Your task to perform on an android device: Open the stopwatch Image 0: 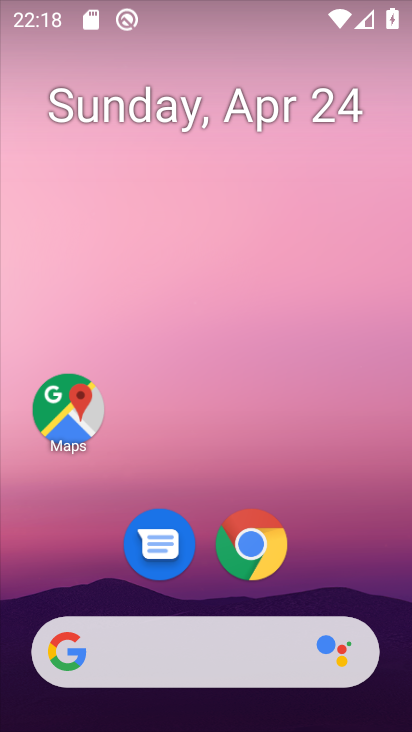
Step 0: drag from (329, 528) to (321, 259)
Your task to perform on an android device: Open the stopwatch Image 1: 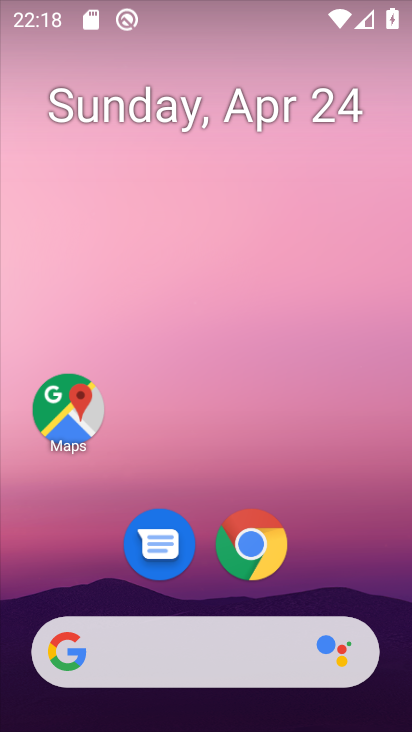
Step 1: drag from (343, 565) to (350, 240)
Your task to perform on an android device: Open the stopwatch Image 2: 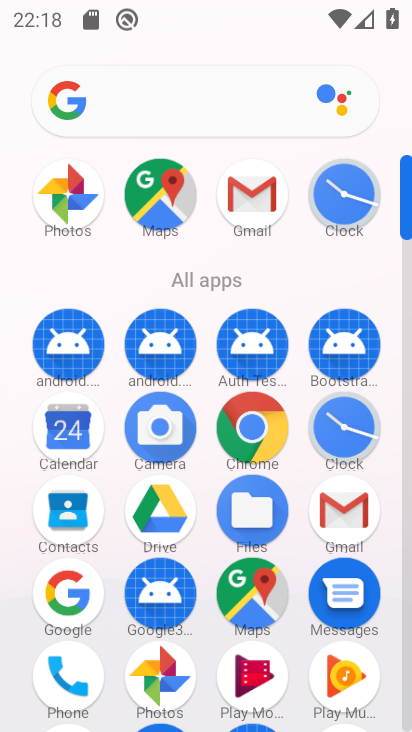
Step 2: click (326, 420)
Your task to perform on an android device: Open the stopwatch Image 3: 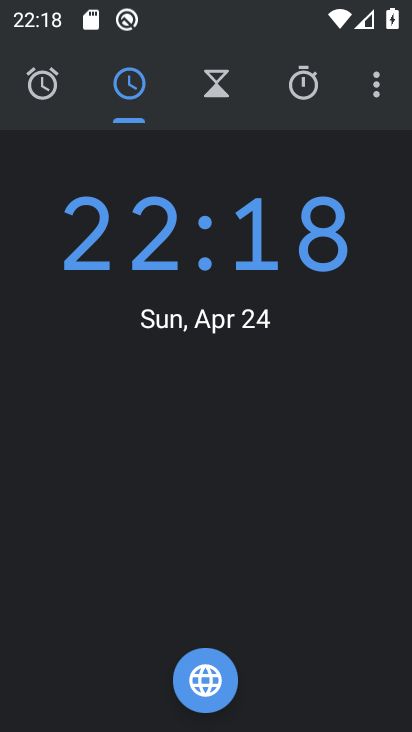
Step 3: click (293, 81)
Your task to perform on an android device: Open the stopwatch Image 4: 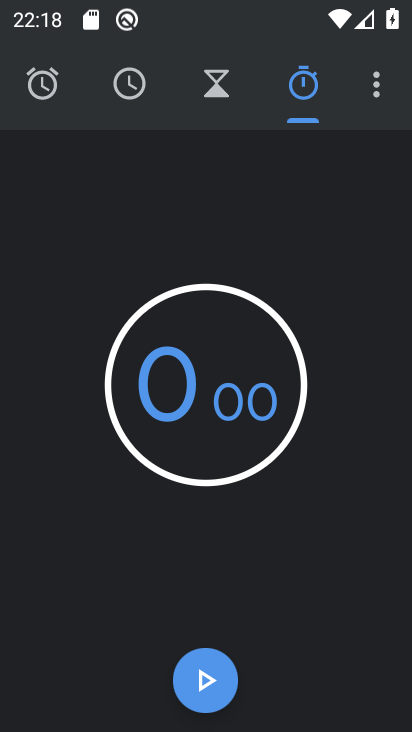
Step 4: click (199, 683)
Your task to perform on an android device: Open the stopwatch Image 5: 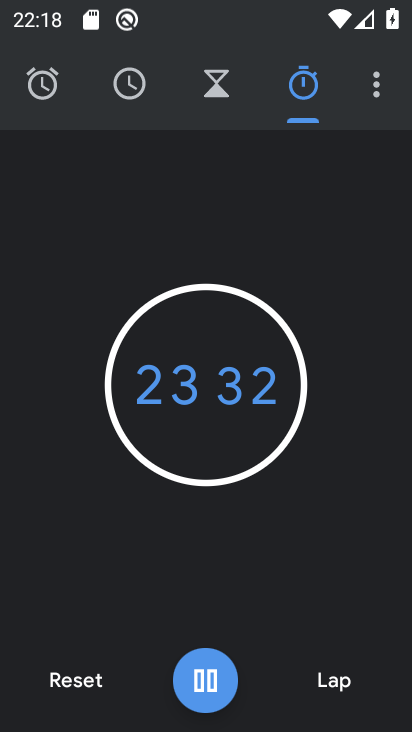
Step 5: task complete